Your task to perform on an android device: open sync settings in chrome Image 0: 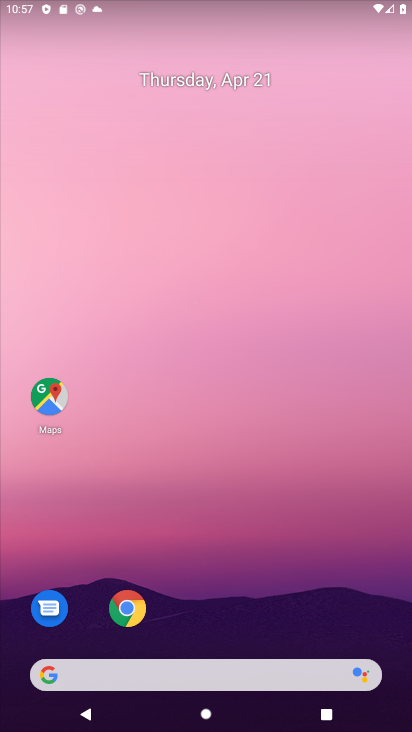
Step 0: click (127, 608)
Your task to perform on an android device: open sync settings in chrome Image 1: 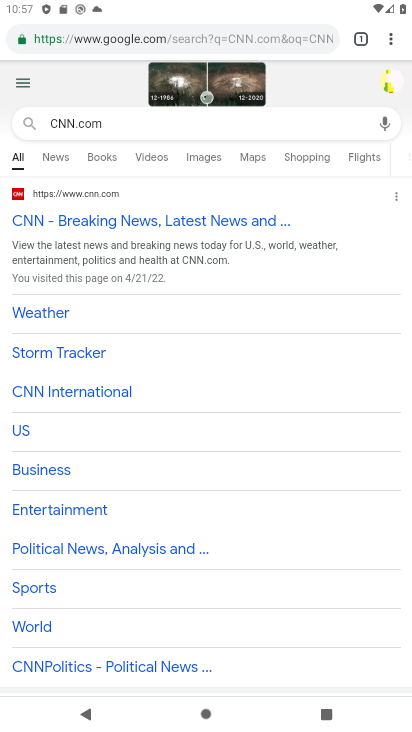
Step 1: click (394, 39)
Your task to perform on an android device: open sync settings in chrome Image 2: 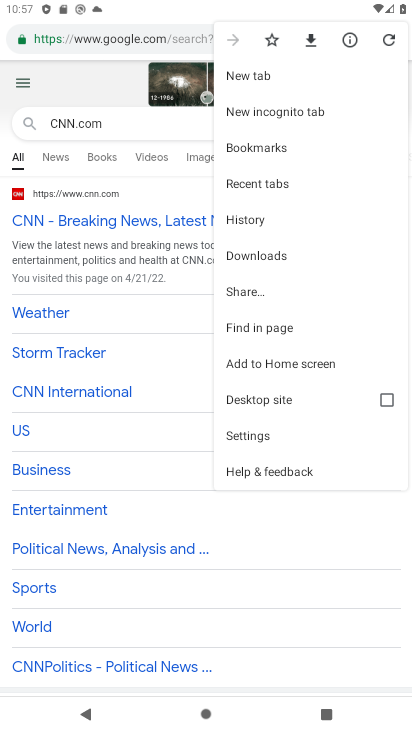
Step 2: click (255, 435)
Your task to perform on an android device: open sync settings in chrome Image 3: 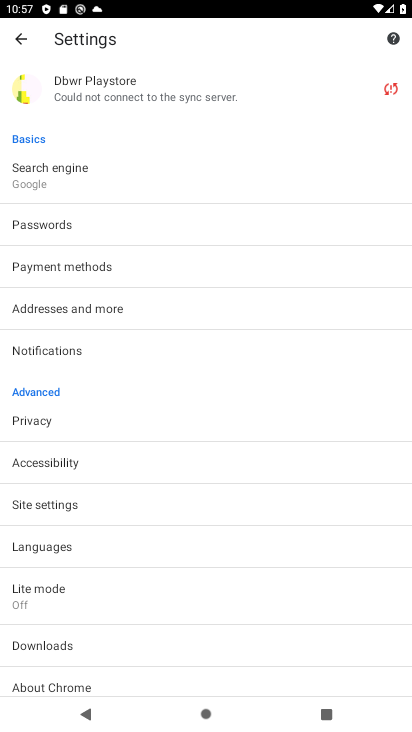
Step 3: click (62, 504)
Your task to perform on an android device: open sync settings in chrome Image 4: 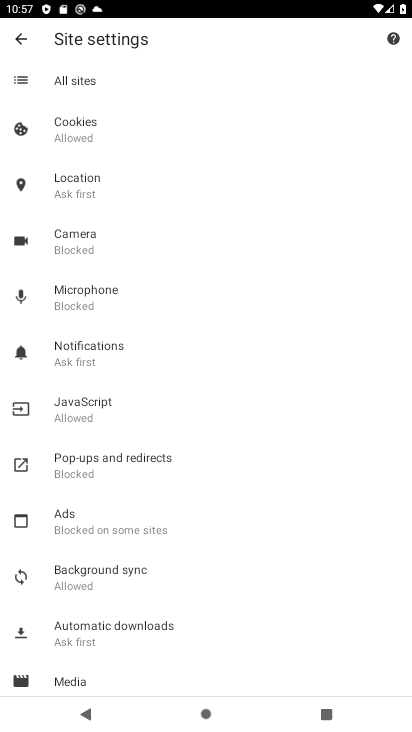
Step 4: click (109, 574)
Your task to perform on an android device: open sync settings in chrome Image 5: 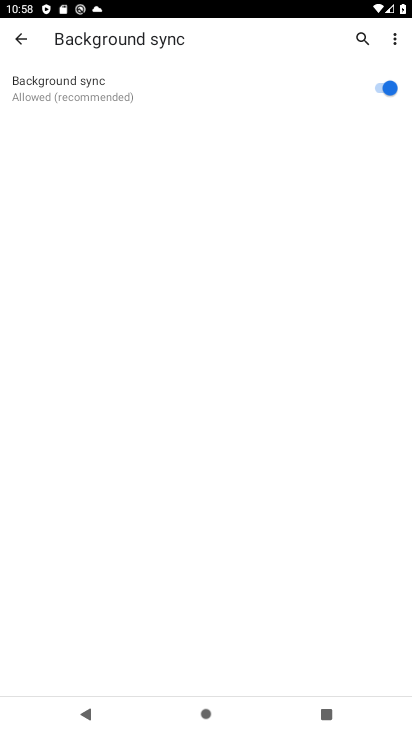
Step 5: task complete